Your task to perform on an android device: Is it going to rain this weekend? Image 0: 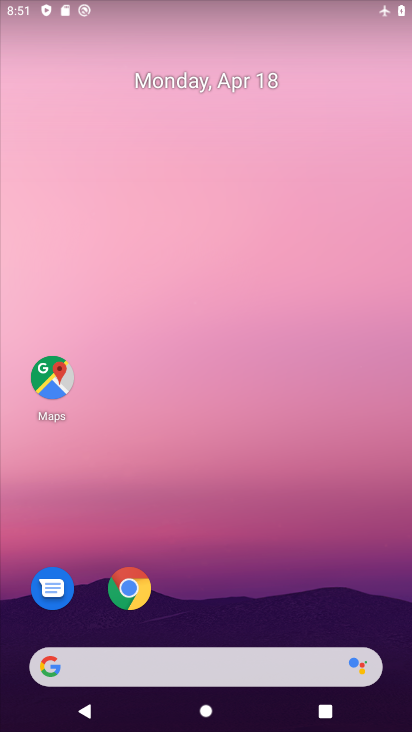
Step 0: drag from (227, 616) to (290, 187)
Your task to perform on an android device: Is it going to rain this weekend? Image 1: 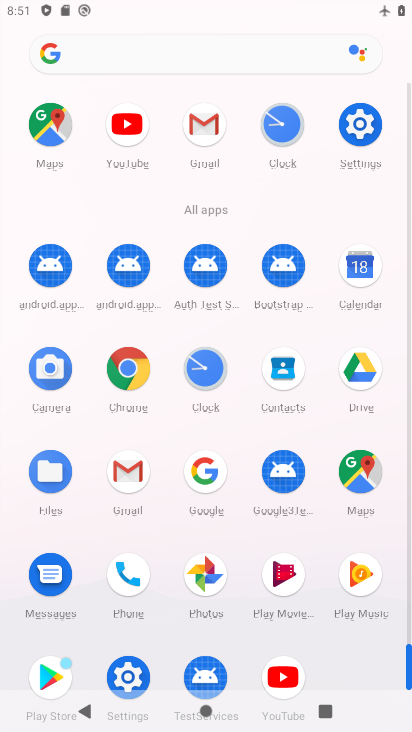
Step 1: click (117, 363)
Your task to perform on an android device: Is it going to rain this weekend? Image 2: 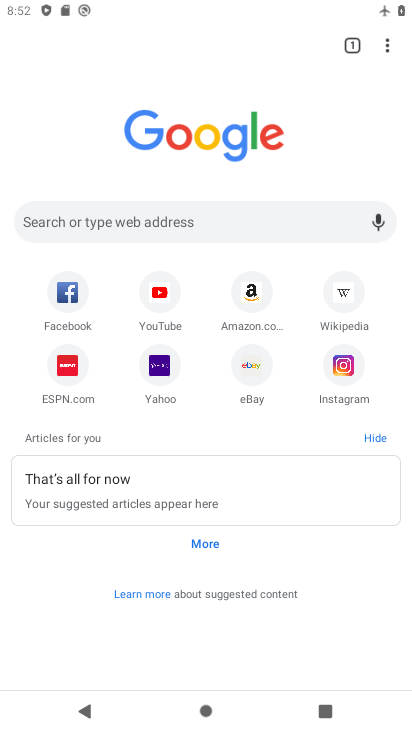
Step 2: click (183, 213)
Your task to perform on an android device: Is it going to rain this weekend? Image 3: 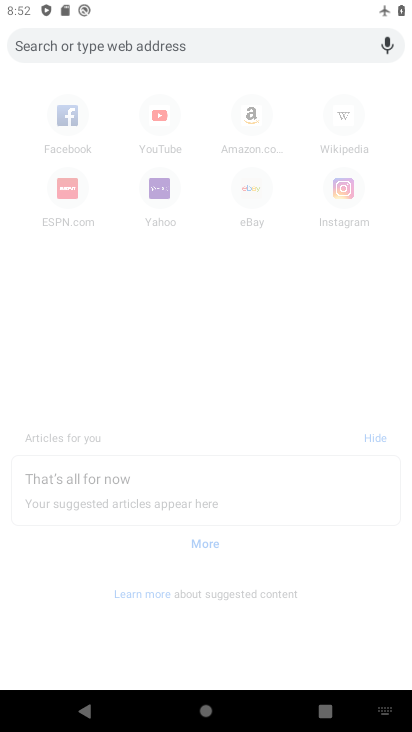
Step 3: type "Is it going to rain this weekend?"
Your task to perform on an android device: Is it going to rain this weekend? Image 4: 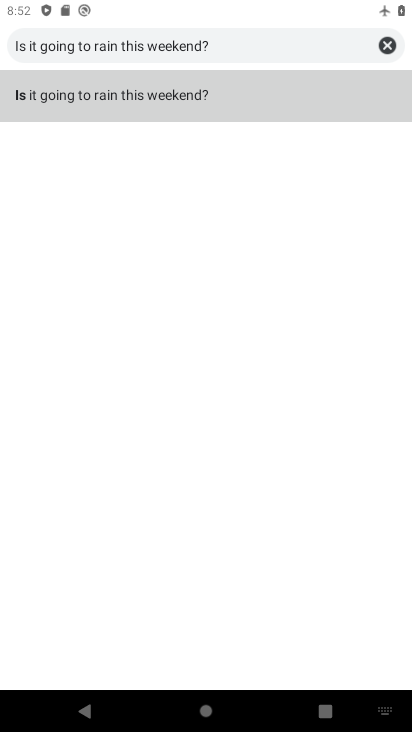
Step 4: click (205, 95)
Your task to perform on an android device: Is it going to rain this weekend? Image 5: 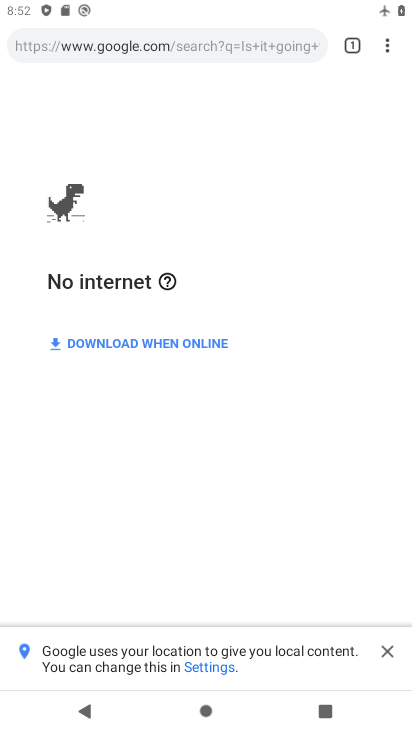
Step 5: task complete